Your task to perform on an android device: turn on priority inbox in the gmail app Image 0: 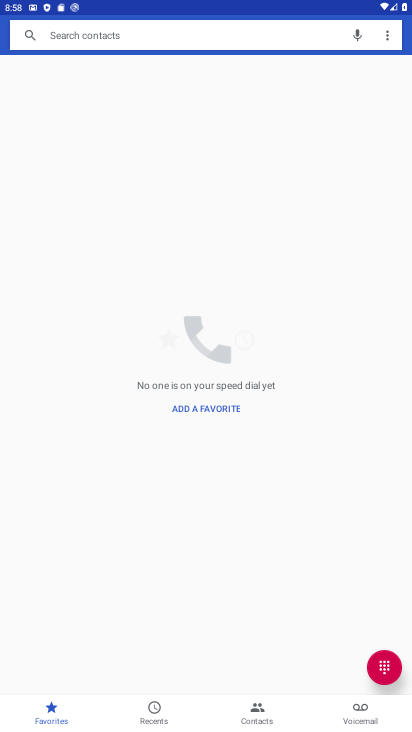
Step 0: press home button
Your task to perform on an android device: turn on priority inbox in the gmail app Image 1: 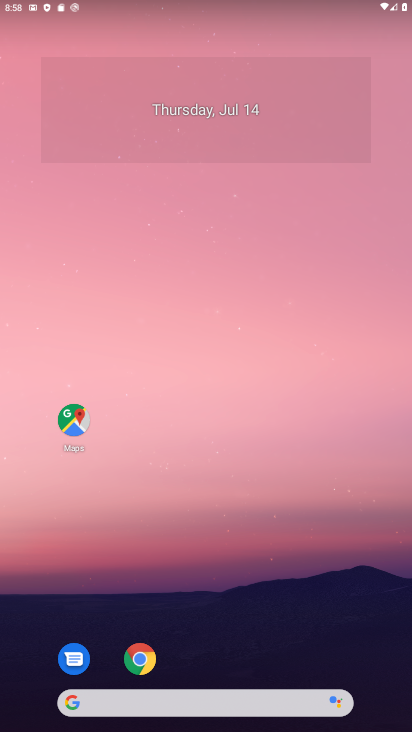
Step 1: drag from (258, 643) to (164, 0)
Your task to perform on an android device: turn on priority inbox in the gmail app Image 2: 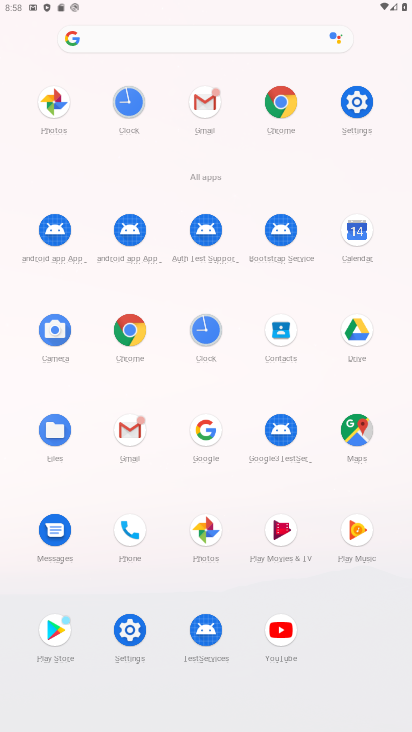
Step 2: click (206, 103)
Your task to perform on an android device: turn on priority inbox in the gmail app Image 3: 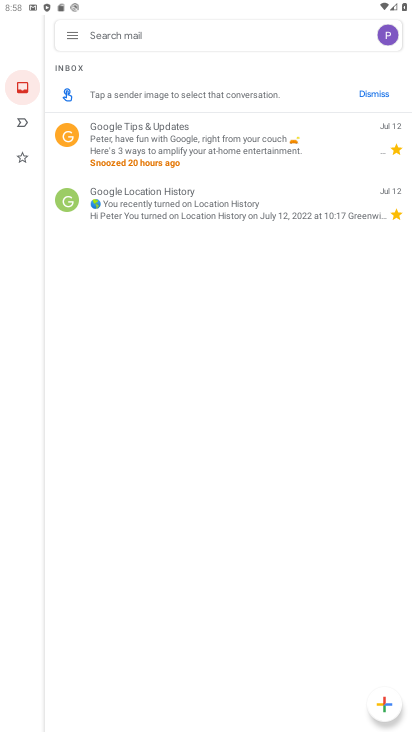
Step 3: click (82, 32)
Your task to perform on an android device: turn on priority inbox in the gmail app Image 4: 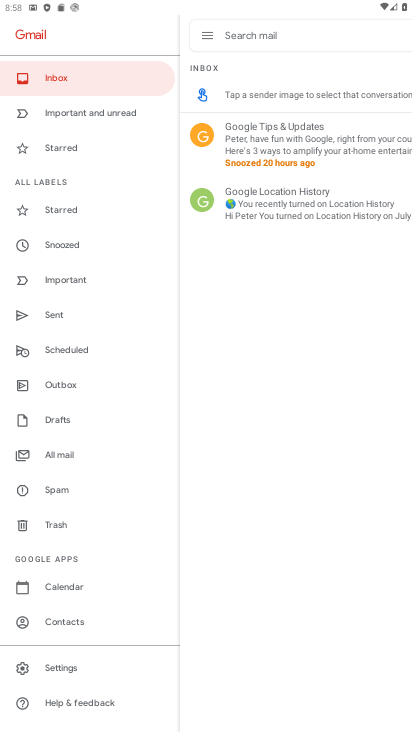
Step 4: click (70, 669)
Your task to perform on an android device: turn on priority inbox in the gmail app Image 5: 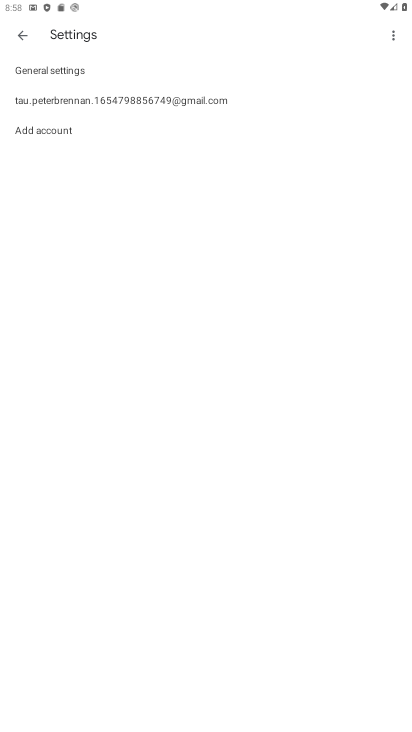
Step 5: click (71, 97)
Your task to perform on an android device: turn on priority inbox in the gmail app Image 6: 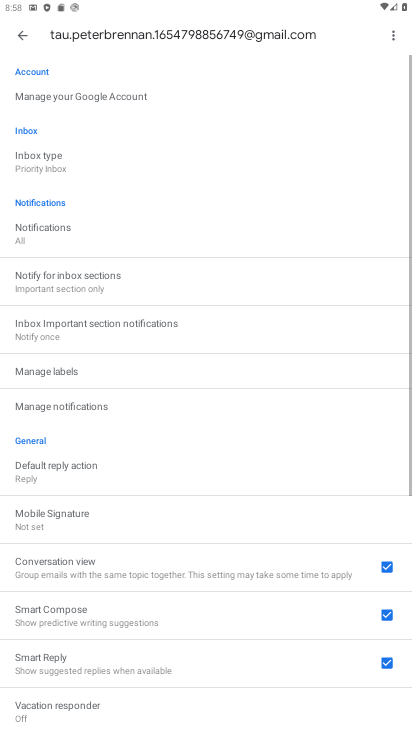
Step 6: click (49, 155)
Your task to perform on an android device: turn on priority inbox in the gmail app Image 7: 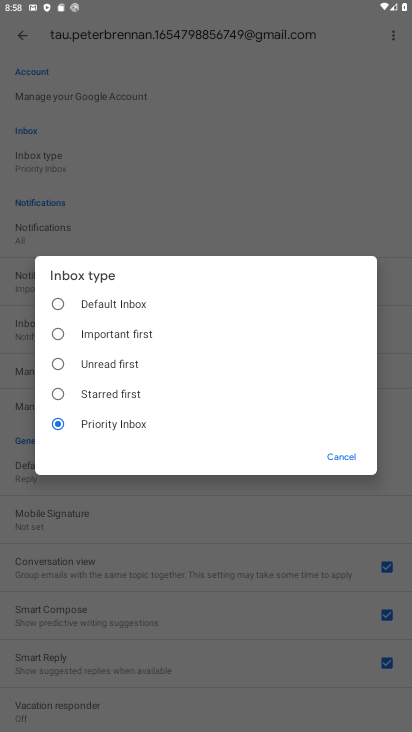
Step 7: task complete